Your task to perform on an android device: Play the last video I watched on Youtube Image 0: 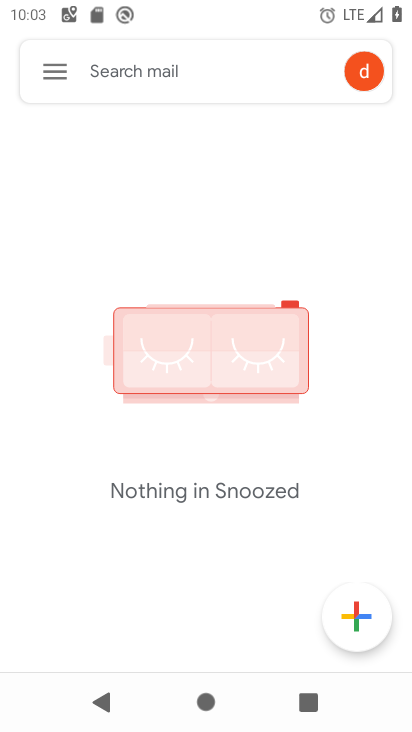
Step 0: press home button
Your task to perform on an android device: Play the last video I watched on Youtube Image 1: 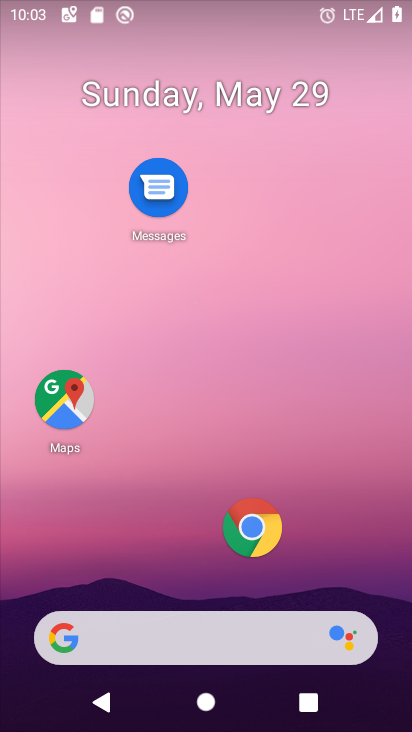
Step 1: drag from (191, 583) to (219, 38)
Your task to perform on an android device: Play the last video I watched on Youtube Image 2: 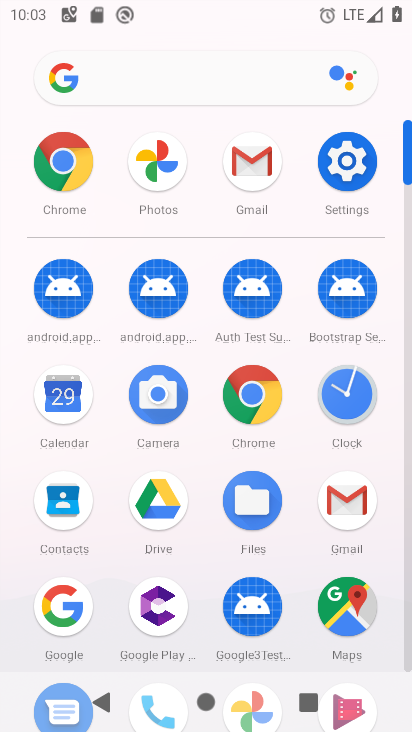
Step 2: drag from (199, 626) to (225, 164)
Your task to perform on an android device: Play the last video I watched on Youtube Image 3: 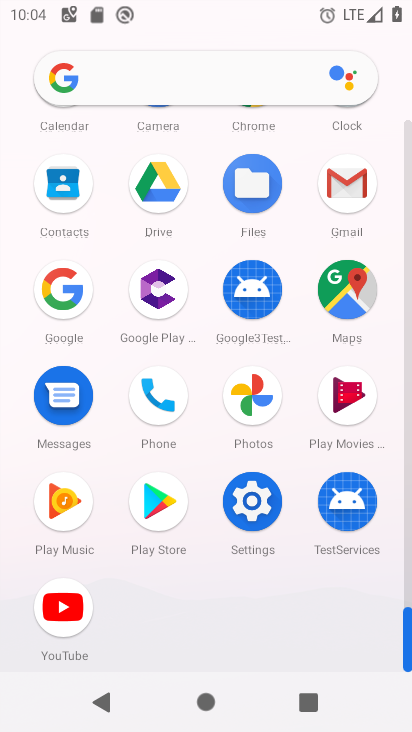
Step 3: click (59, 596)
Your task to perform on an android device: Play the last video I watched on Youtube Image 4: 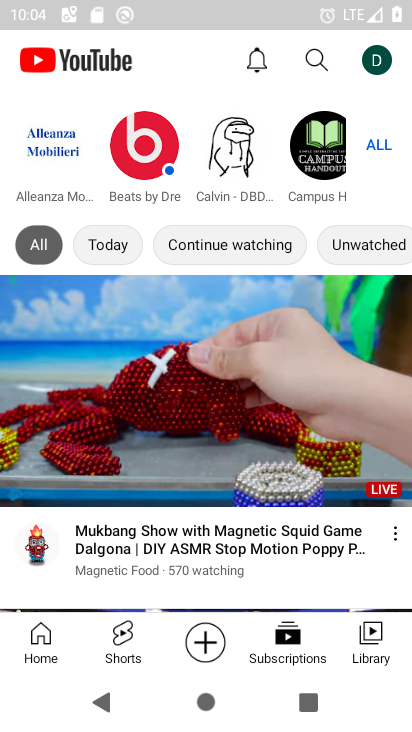
Step 4: click (368, 632)
Your task to perform on an android device: Play the last video I watched on Youtube Image 5: 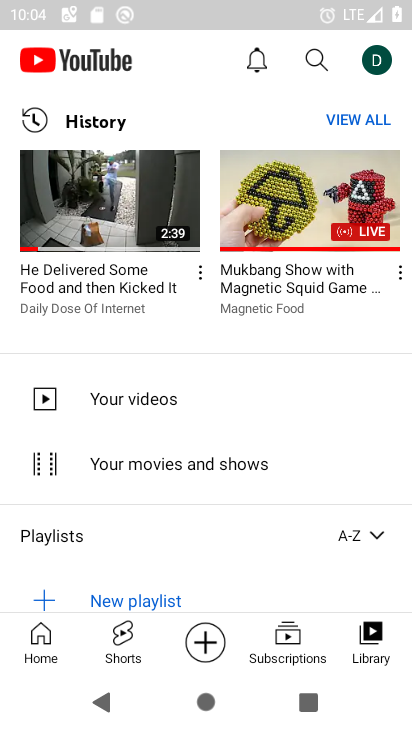
Step 5: click (107, 217)
Your task to perform on an android device: Play the last video I watched on Youtube Image 6: 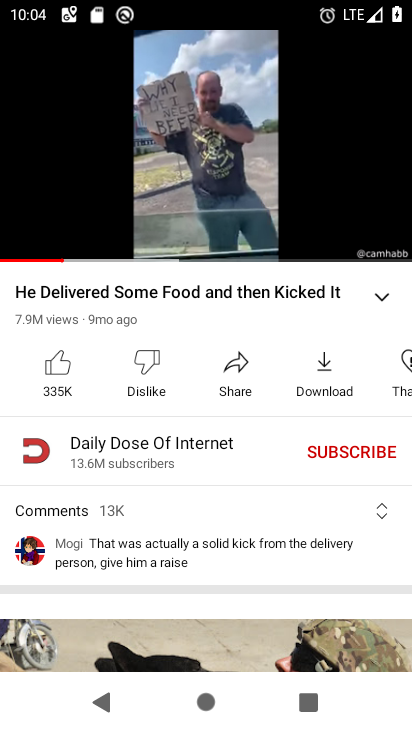
Step 6: task complete